Your task to perform on an android device: Add "alienware aurora" to the cart on walmart.com, then select checkout. Image 0: 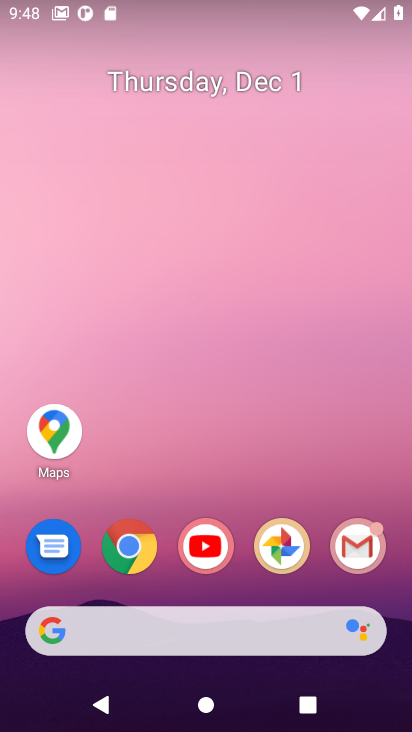
Step 0: click (128, 548)
Your task to perform on an android device: Add "alienware aurora" to the cart on walmart.com, then select checkout. Image 1: 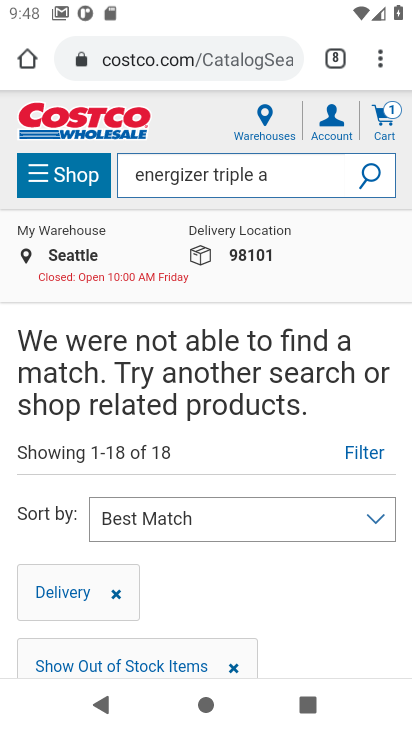
Step 1: click (163, 61)
Your task to perform on an android device: Add "alienware aurora" to the cart on walmart.com, then select checkout. Image 2: 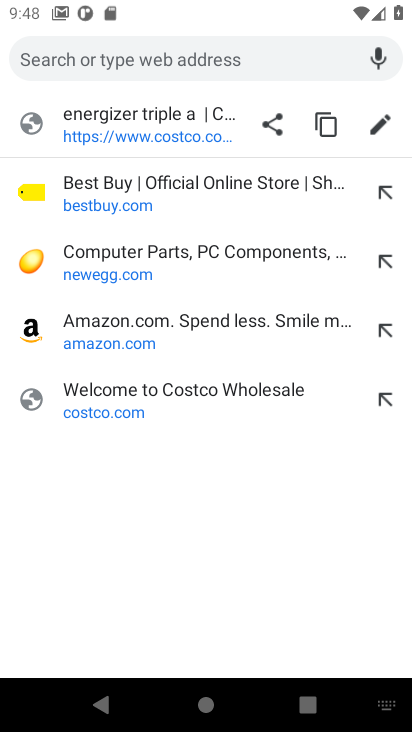
Step 2: type "walmart.com"
Your task to perform on an android device: Add "alienware aurora" to the cart on walmart.com, then select checkout. Image 3: 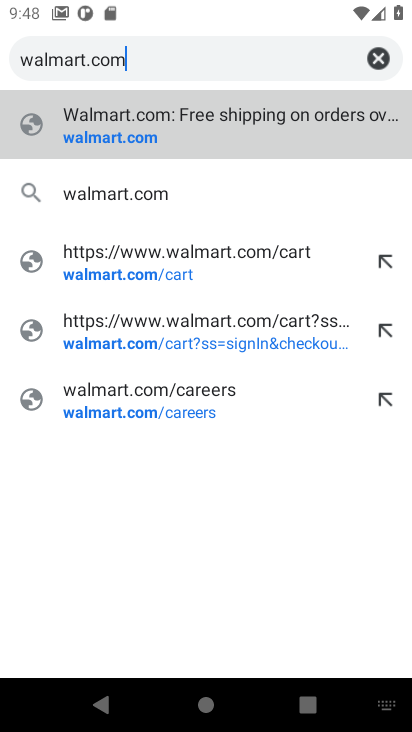
Step 3: click (93, 141)
Your task to perform on an android device: Add "alienware aurora" to the cart on walmart.com, then select checkout. Image 4: 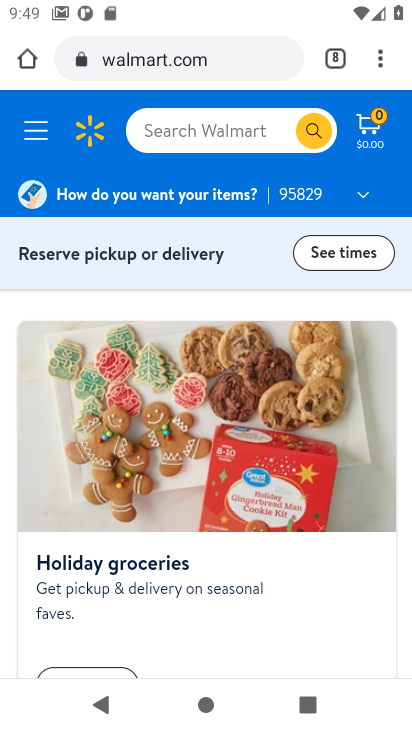
Step 4: click (197, 142)
Your task to perform on an android device: Add "alienware aurora" to the cart on walmart.com, then select checkout. Image 5: 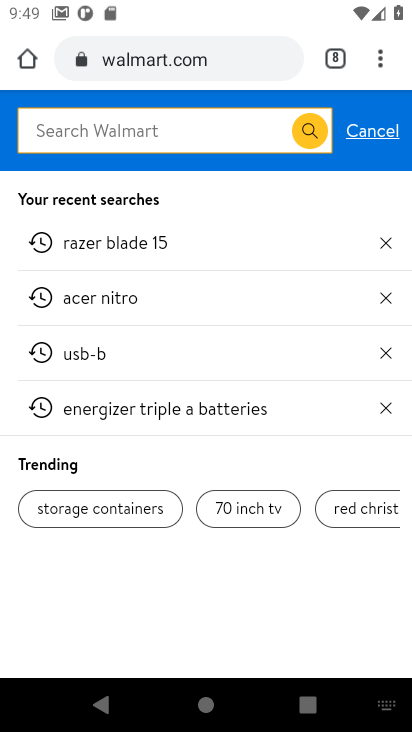
Step 5: type "alienware aurora"
Your task to perform on an android device: Add "alienware aurora" to the cart on walmart.com, then select checkout. Image 6: 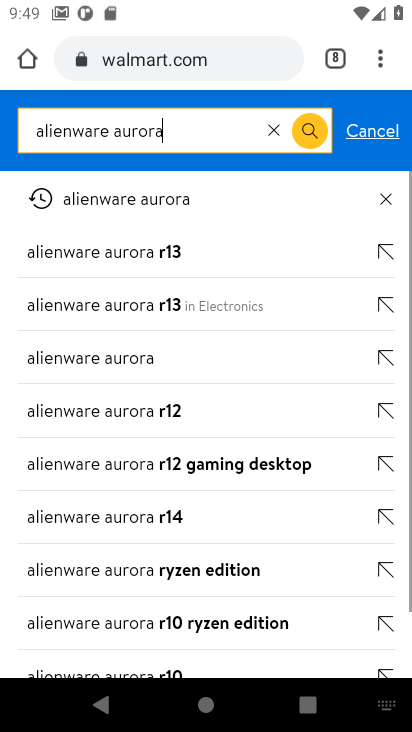
Step 6: click (124, 202)
Your task to perform on an android device: Add "alienware aurora" to the cart on walmart.com, then select checkout. Image 7: 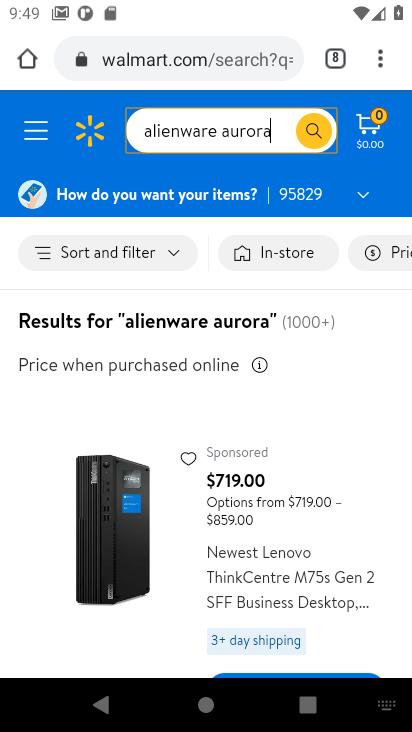
Step 7: drag from (171, 443) to (145, 223)
Your task to perform on an android device: Add "alienware aurora" to the cart on walmart.com, then select checkout. Image 8: 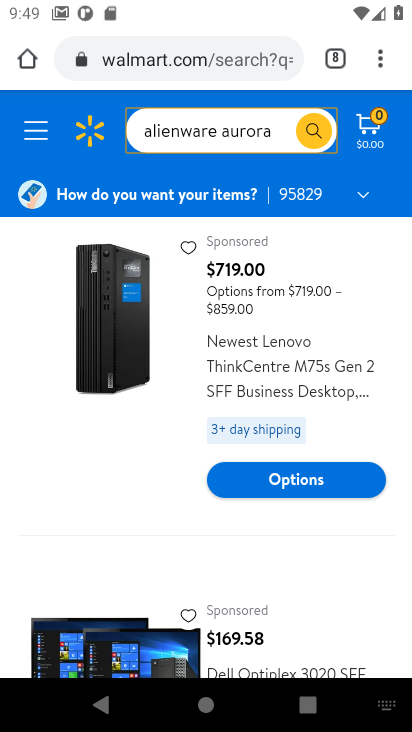
Step 8: drag from (144, 460) to (143, 186)
Your task to perform on an android device: Add "alienware aurora" to the cart on walmart.com, then select checkout. Image 9: 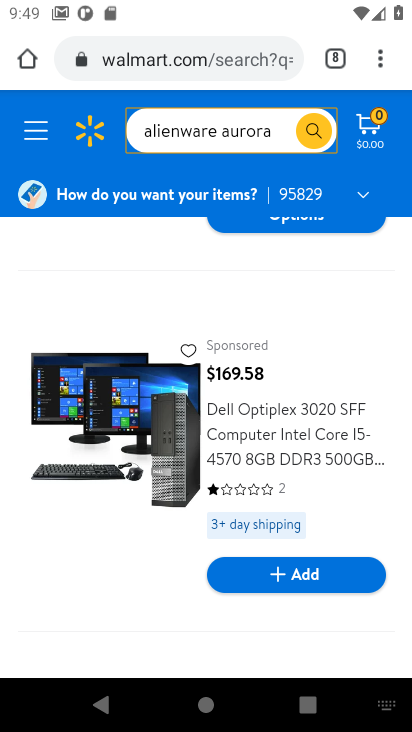
Step 9: drag from (135, 393) to (112, 114)
Your task to perform on an android device: Add "alienware aurora" to the cart on walmart.com, then select checkout. Image 10: 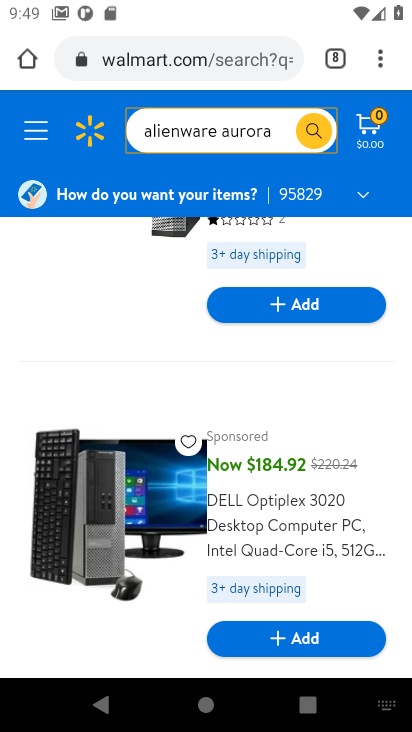
Step 10: drag from (126, 395) to (123, 198)
Your task to perform on an android device: Add "alienware aurora" to the cart on walmart.com, then select checkout. Image 11: 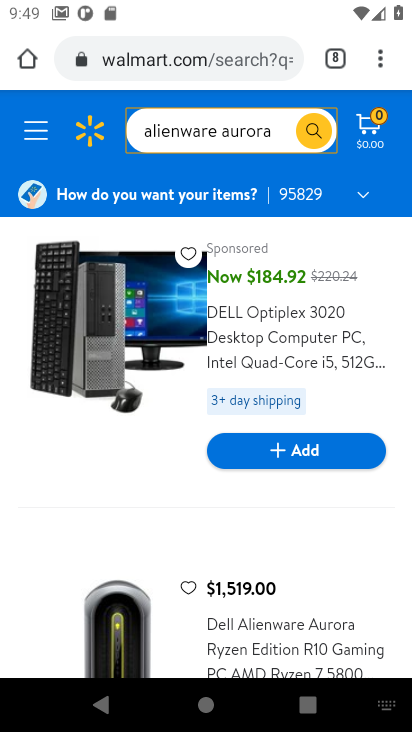
Step 11: drag from (122, 480) to (123, 194)
Your task to perform on an android device: Add "alienware aurora" to the cart on walmart.com, then select checkout. Image 12: 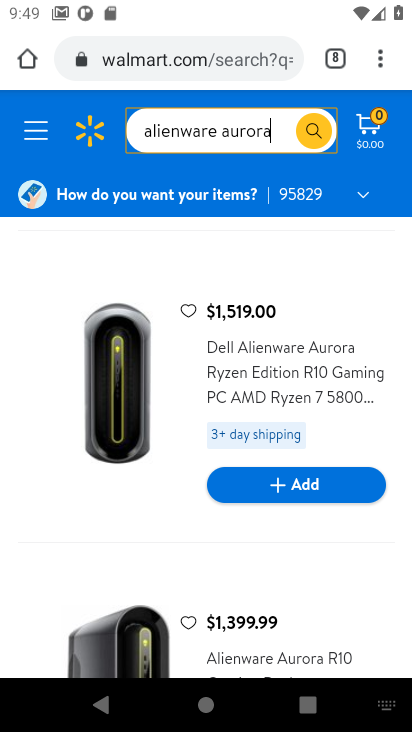
Step 12: click (316, 378)
Your task to perform on an android device: Add "alienware aurora" to the cart on walmart.com, then select checkout. Image 13: 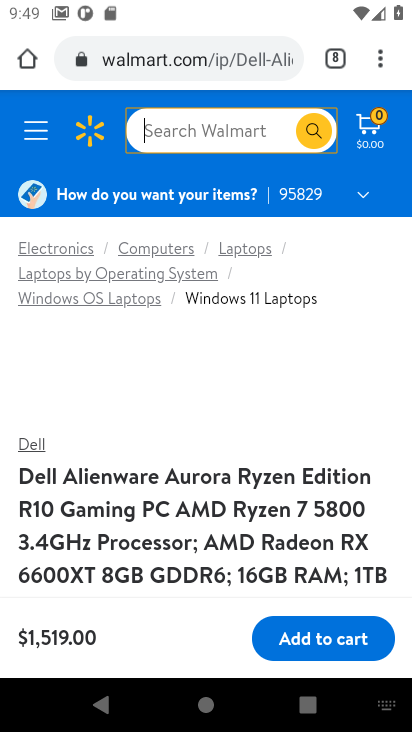
Step 13: drag from (237, 436) to (218, 189)
Your task to perform on an android device: Add "alienware aurora" to the cart on walmart.com, then select checkout. Image 14: 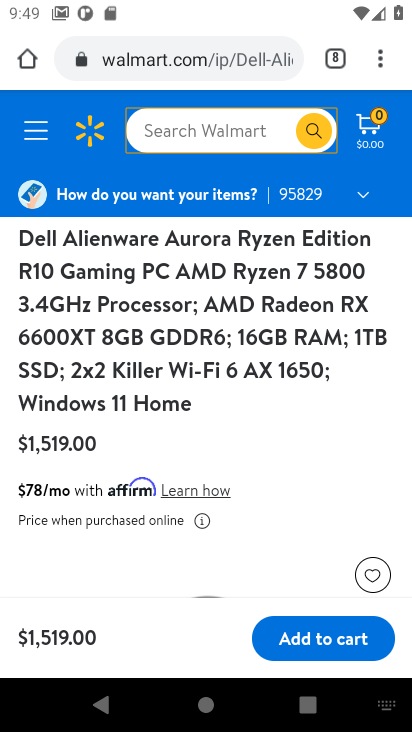
Step 14: click (297, 646)
Your task to perform on an android device: Add "alienware aurora" to the cart on walmart.com, then select checkout. Image 15: 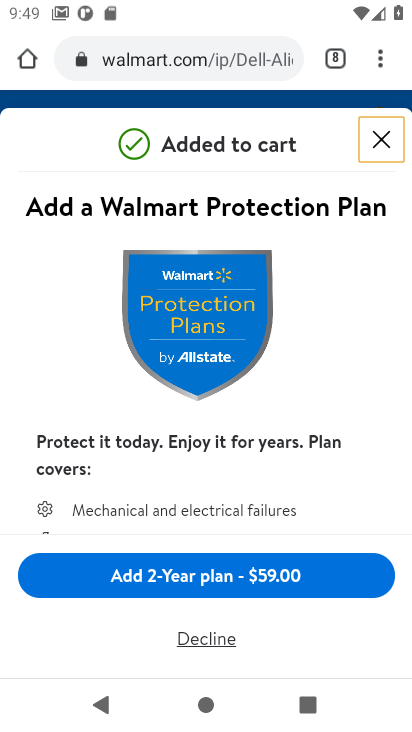
Step 15: click (379, 141)
Your task to perform on an android device: Add "alienware aurora" to the cart on walmart.com, then select checkout. Image 16: 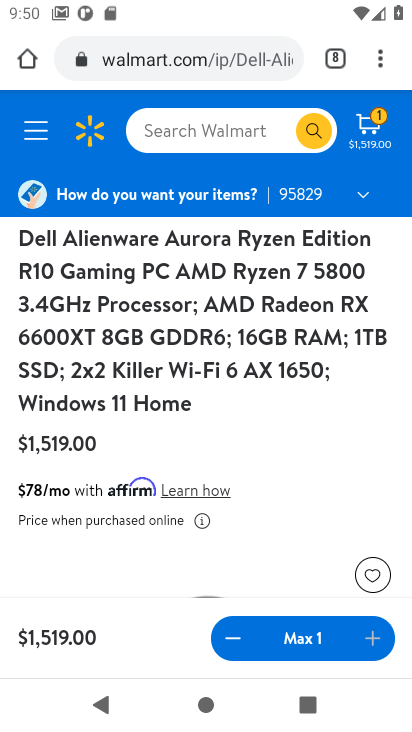
Step 16: click (365, 125)
Your task to perform on an android device: Add "alienware aurora" to the cart on walmart.com, then select checkout. Image 17: 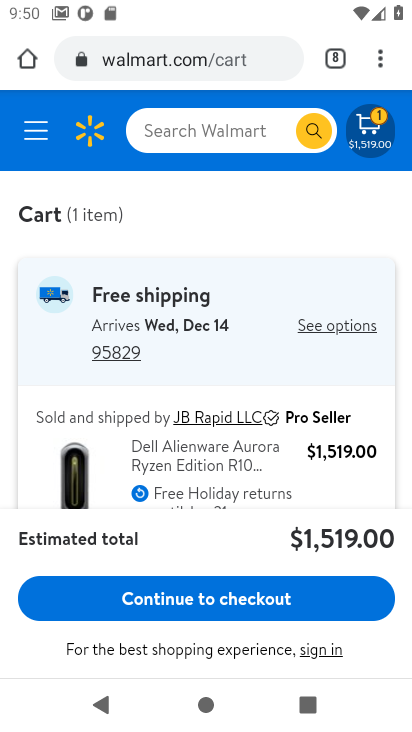
Step 17: click (188, 598)
Your task to perform on an android device: Add "alienware aurora" to the cart on walmart.com, then select checkout. Image 18: 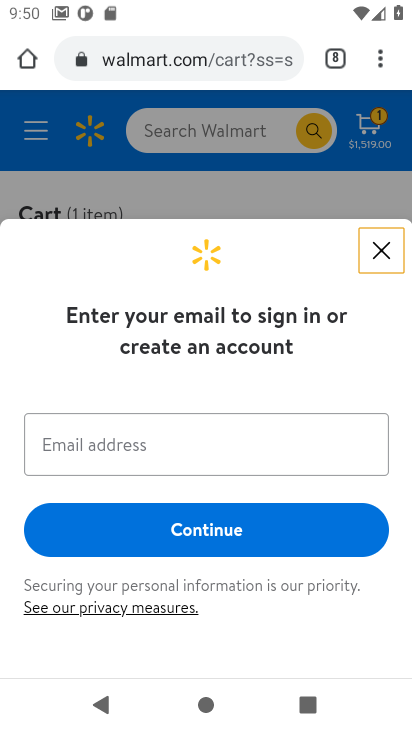
Step 18: task complete